Your task to perform on an android device: make emails show in primary in the gmail app Image 0: 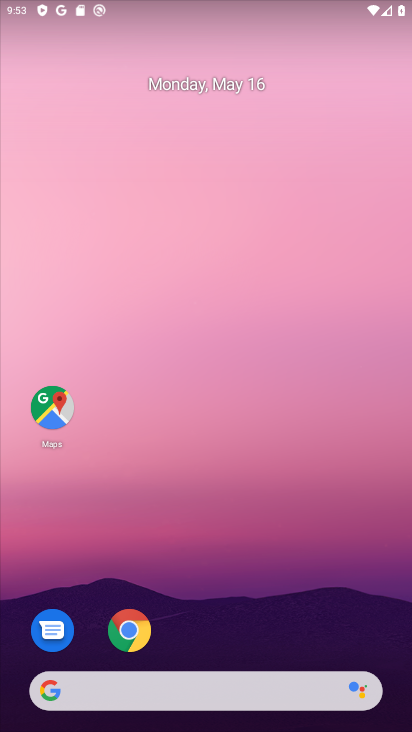
Step 0: drag from (212, 637) to (291, 2)
Your task to perform on an android device: make emails show in primary in the gmail app Image 1: 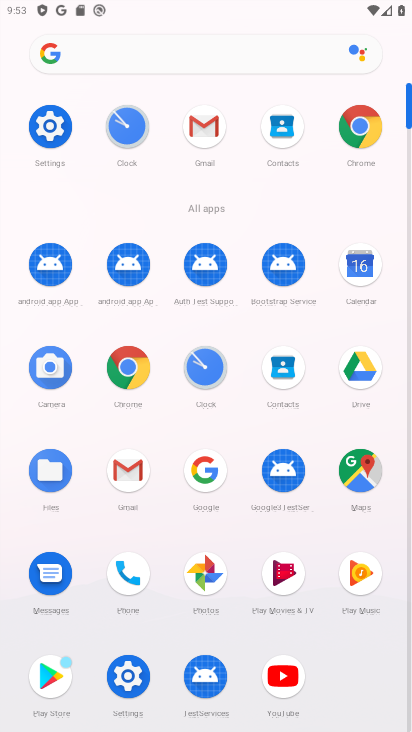
Step 1: click (131, 493)
Your task to perform on an android device: make emails show in primary in the gmail app Image 2: 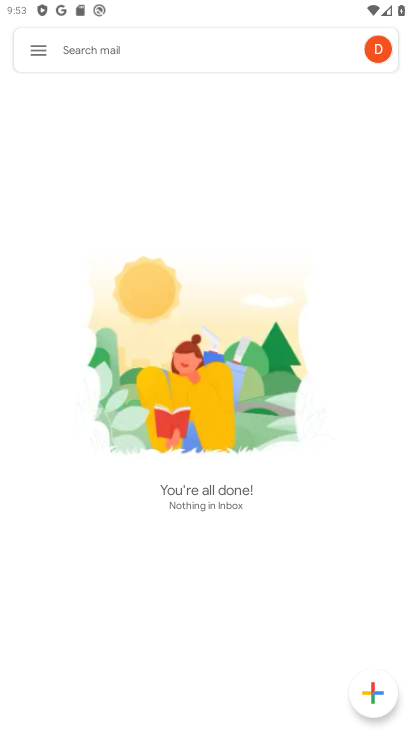
Step 2: click (27, 48)
Your task to perform on an android device: make emails show in primary in the gmail app Image 3: 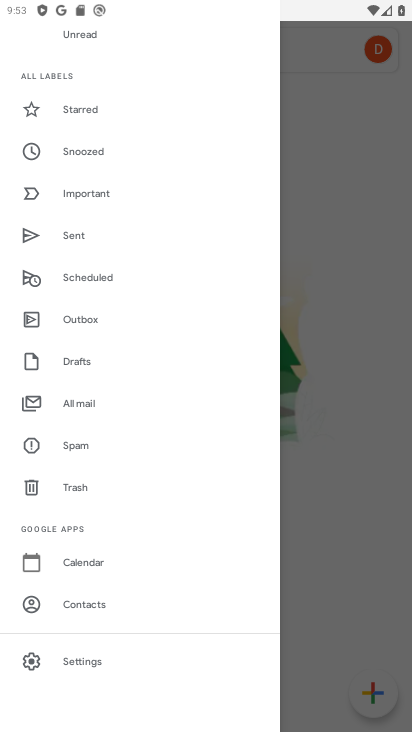
Step 3: drag from (84, 638) to (173, 229)
Your task to perform on an android device: make emails show in primary in the gmail app Image 4: 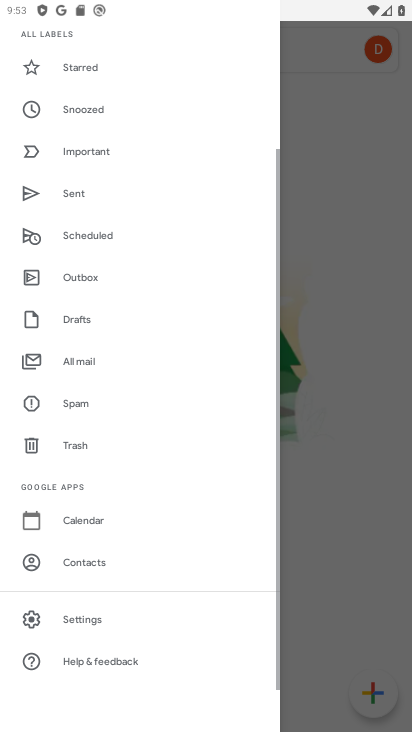
Step 4: click (98, 625)
Your task to perform on an android device: make emails show in primary in the gmail app Image 5: 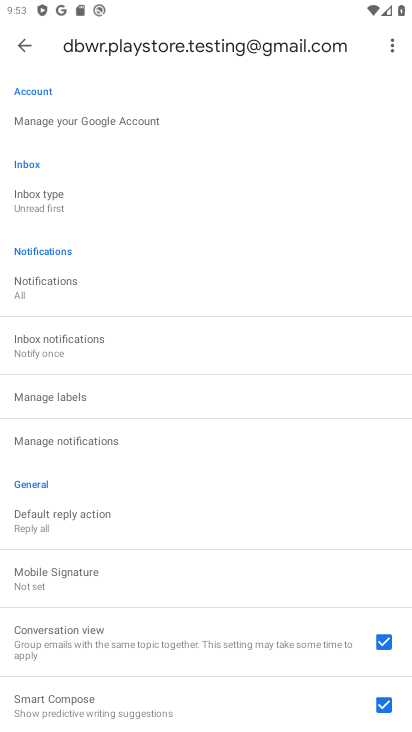
Step 5: click (51, 207)
Your task to perform on an android device: make emails show in primary in the gmail app Image 6: 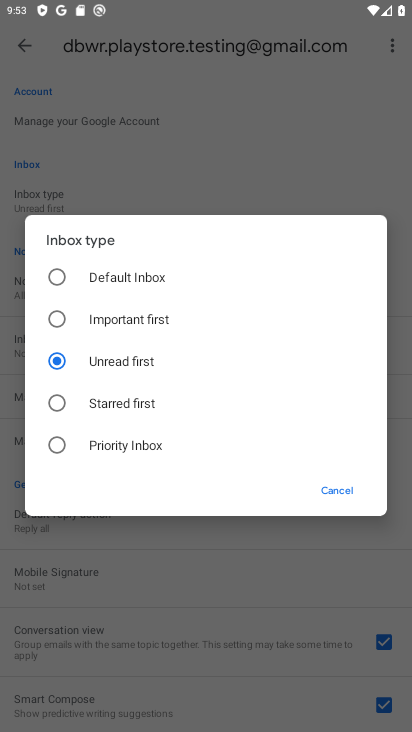
Step 6: click (76, 276)
Your task to perform on an android device: make emails show in primary in the gmail app Image 7: 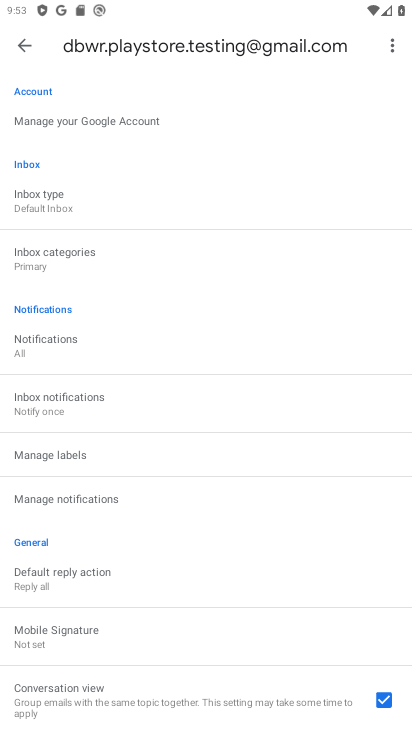
Step 7: task complete